Your task to perform on an android device: Go to display settings Image 0: 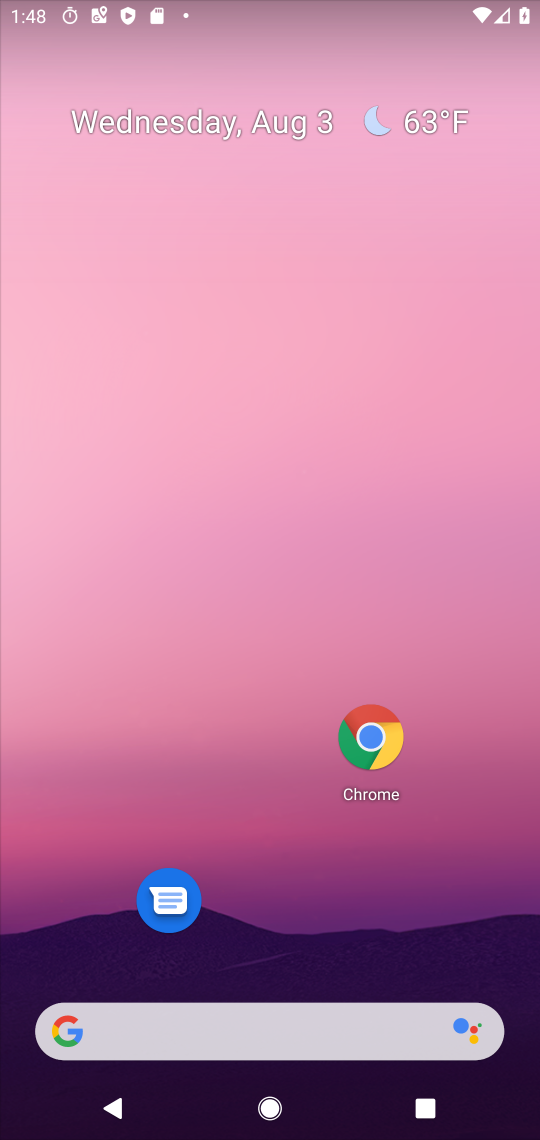
Step 0: drag from (276, 691) to (198, 188)
Your task to perform on an android device: Go to display settings Image 1: 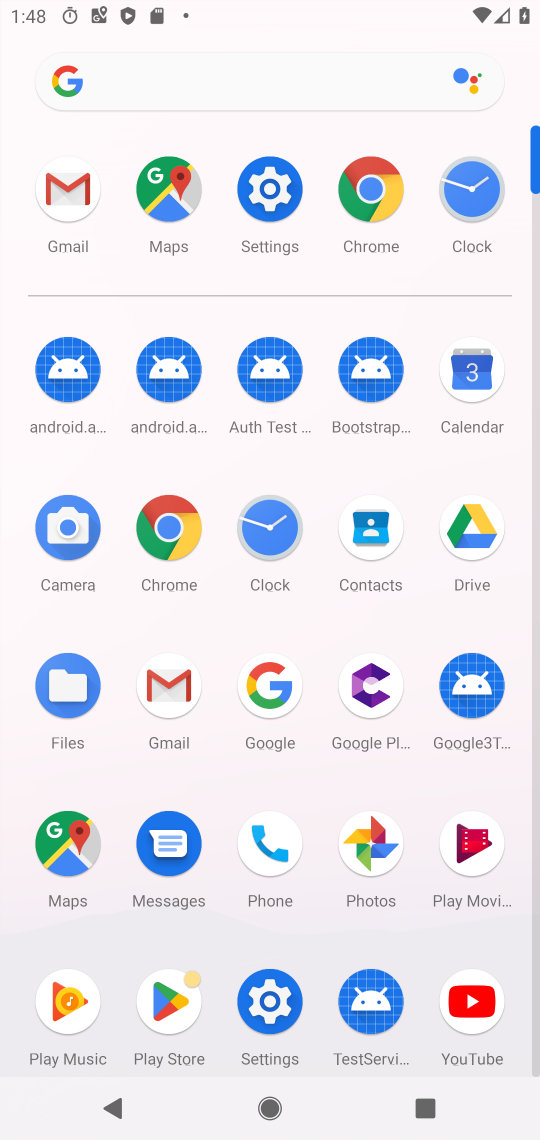
Step 1: click (284, 177)
Your task to perform on an android device: Go to display settings Image 2: 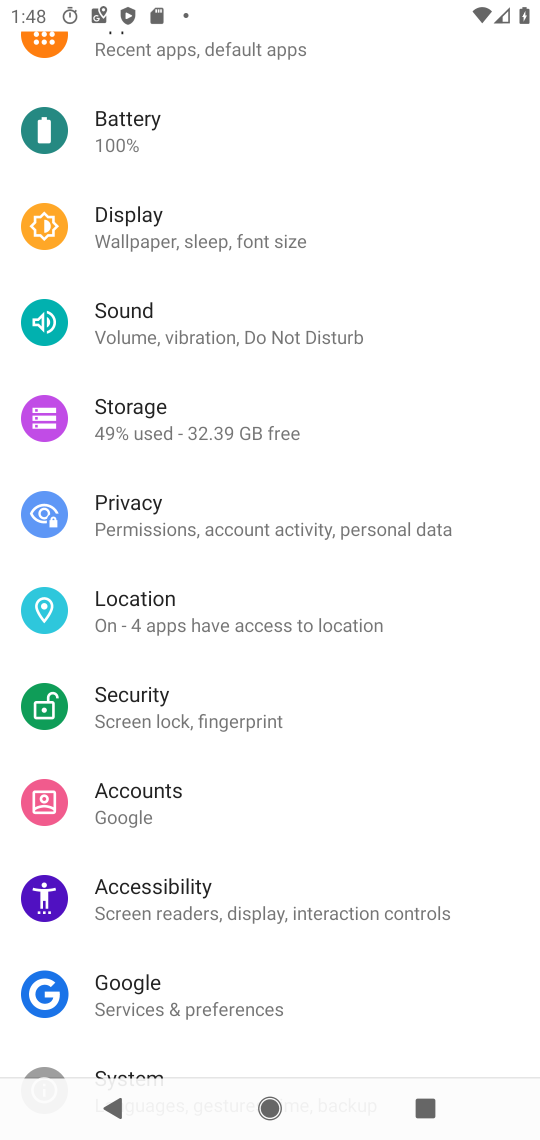
Step 2: click (195, 233)
Your task to perform on an android device: Go to display settings Image 3: 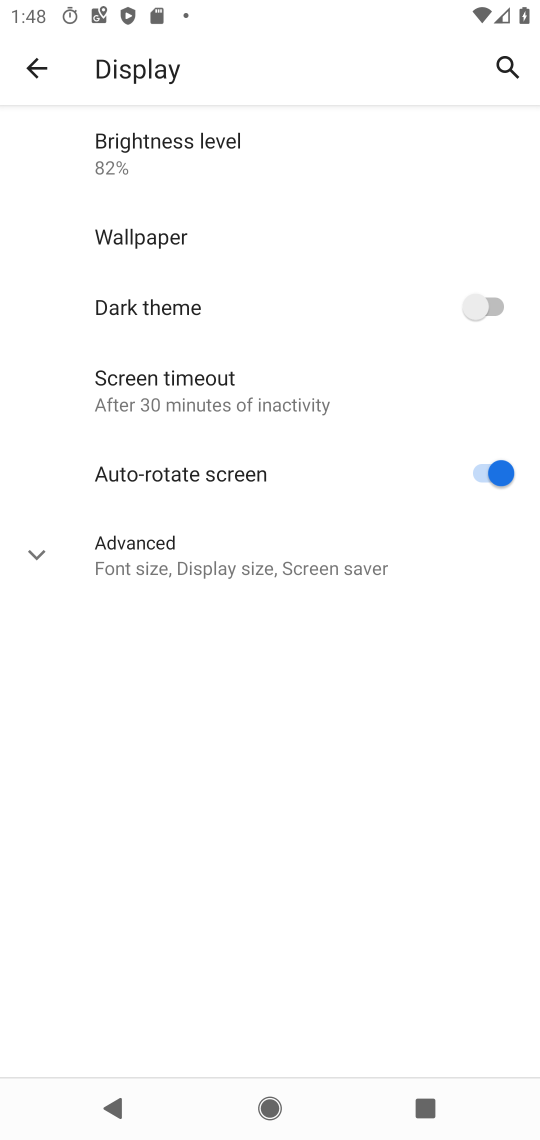
Step 3: task complete